Your task to perform on an android device: Open settings on Google Maps Image 0: 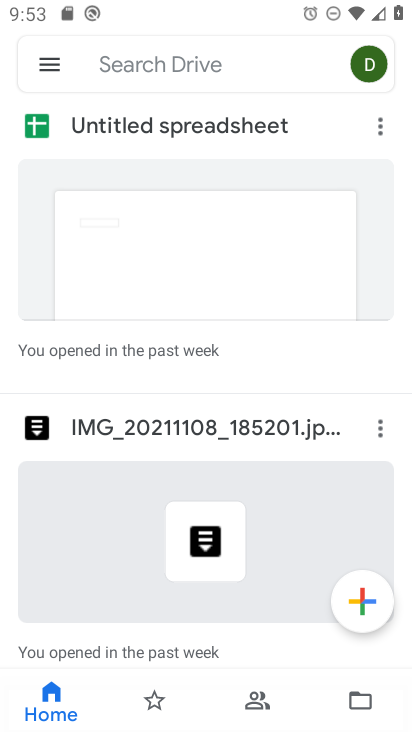
Step 0: press home button
Your task to perform on an android device: Open settings on Google Maps Image 1: 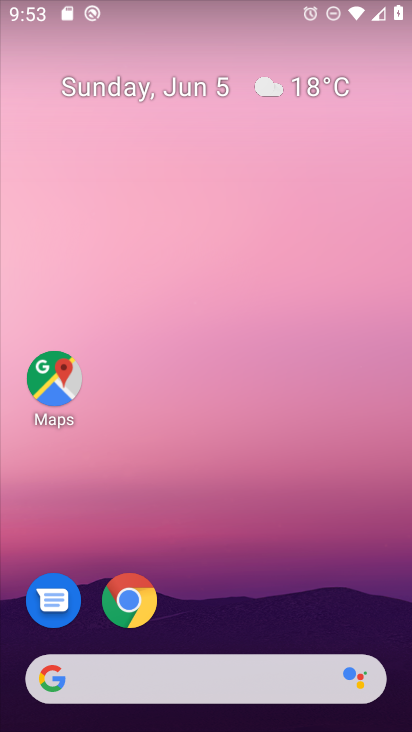
Step 1: click (50, 377)
Your task to perform on an android device: Open settings on Google Maps Image 2: 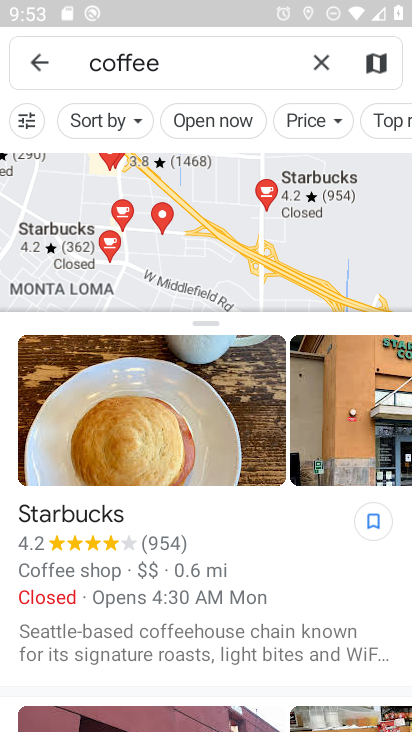
Step 2: click (40, 53)
Your task to perform on an android device: Open settings on Google Maps Image 3: 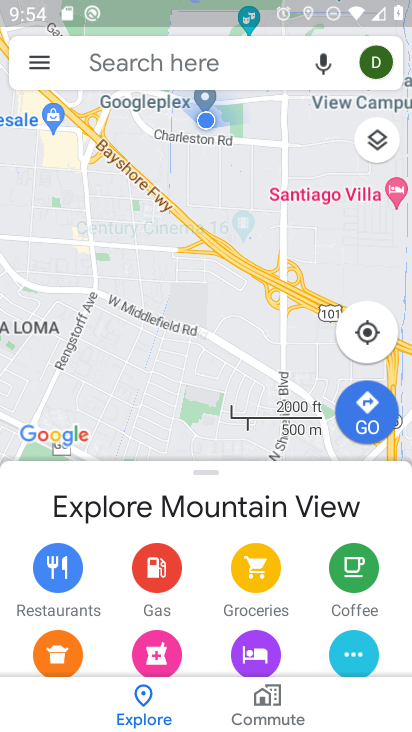
Step 3: click (41, 53)
Your task to perform on an android device: Open settings on Google Maps Image 4: 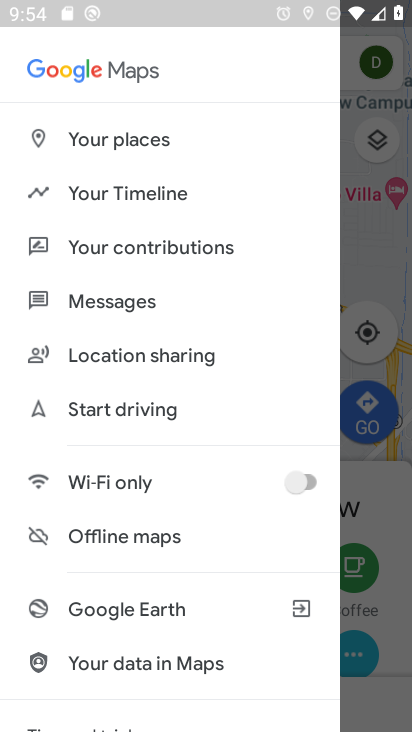
Step 4: drag from (180, 611) to (140, 183)
Your task to perform on an android device: Open settings on Google Maps Image 5: 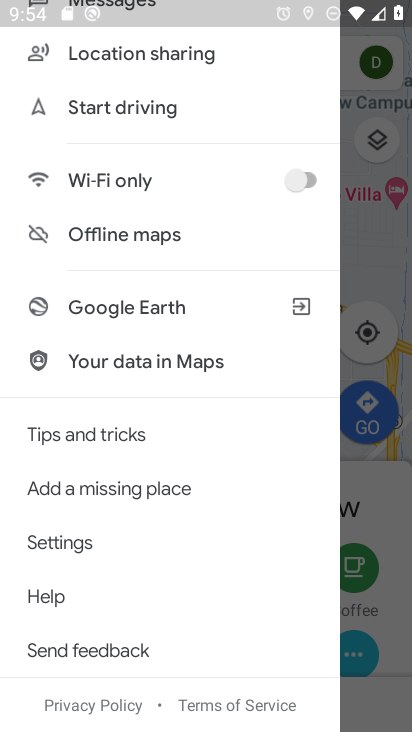
Step 5: click (125, 537)
Your task to perform on an android device: Open settings on Google Maps Image 6: 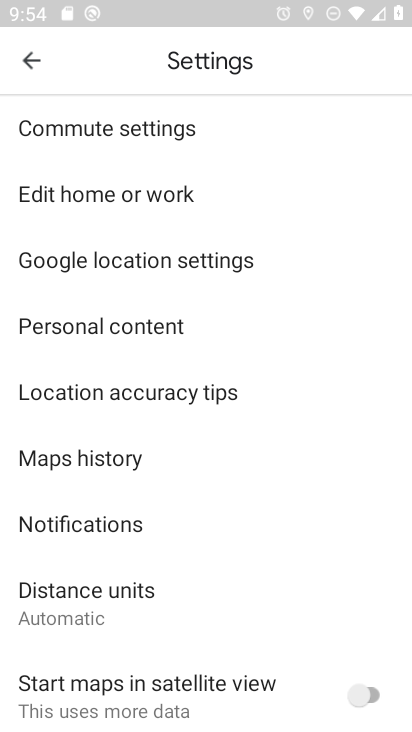
Step 6: task complete